Your task to perform on an android device: What's the weather today? Image 0: 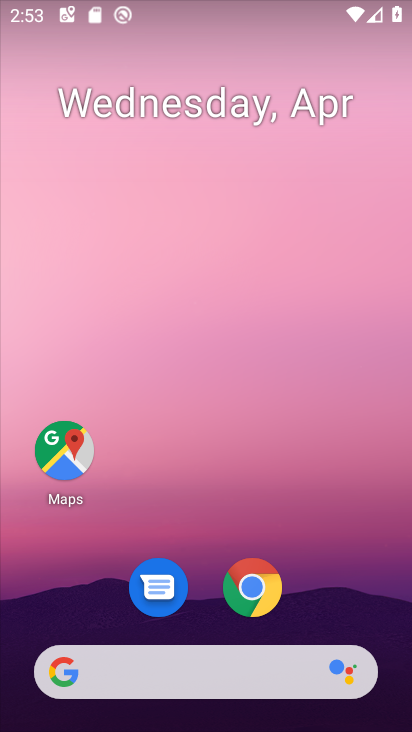
Step 0: drag from (370, 614) to (255, 69)
Your task to perform on an android device: What's the weather today? Image 1: 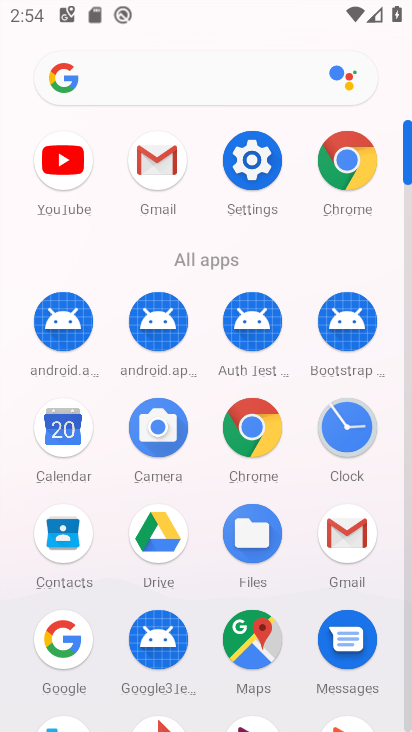
Step 1: task complete